Your task to perform on an android device: turn on the 12-hour format for clock Image 0: 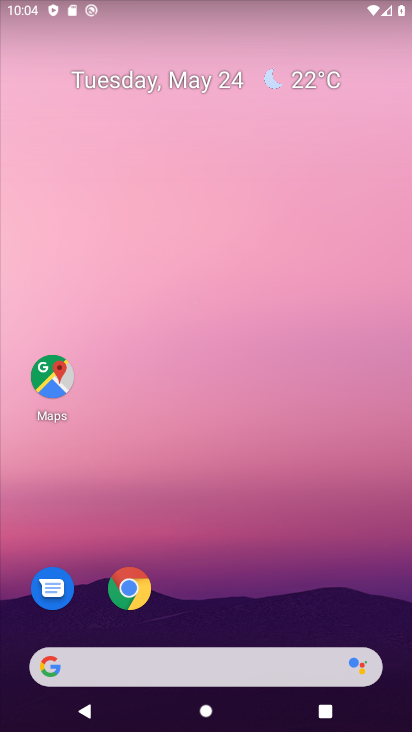
Step 0: drag from (264, 603) to (361, 464)
Your task to perform on an android device: turn on the 12-hour format for clock Image 1: 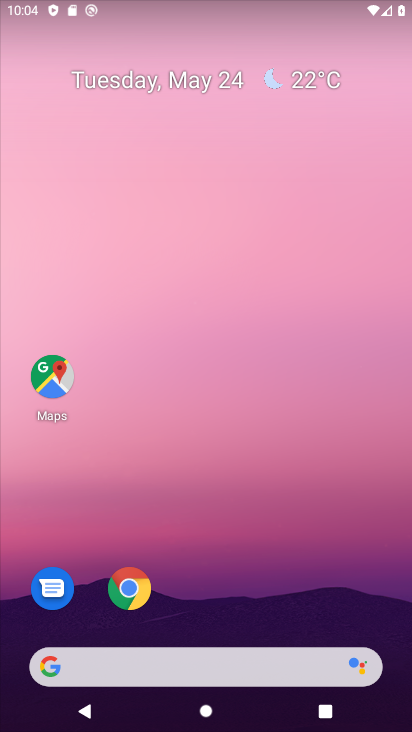
Step 1: drag from (166, 618) to (133, 96)
Your task to perform on an android device: turn on the 12-hour format for clock Image 2: 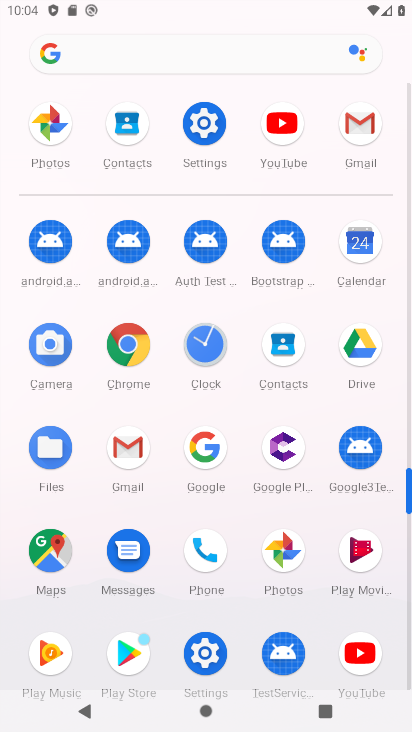
Step 2: click (194, 349)
Your task to perform on an android device: turn on the 12-hour format for clock Image 3: 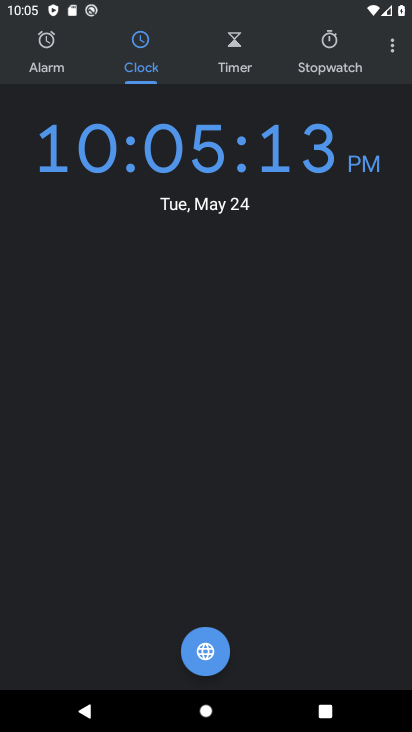
Step 3: click (402, 44)
Your task to perform on an android device: turn on the 12-hour format for clock Image 4: 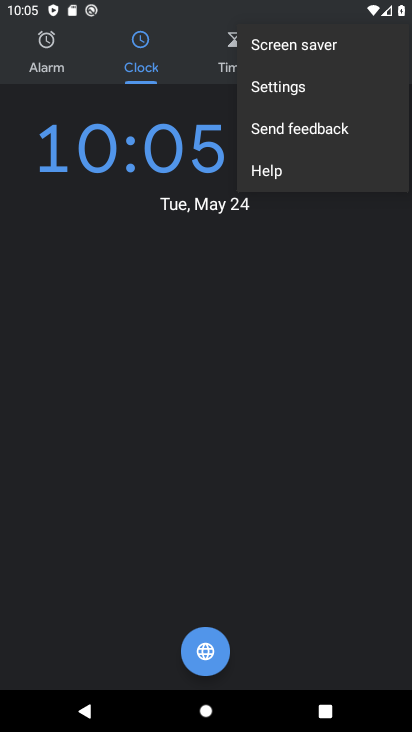
Step 4: click (278, 89)
Your task to perform on an android device: turn on the 12-hour format for clock Image 5: 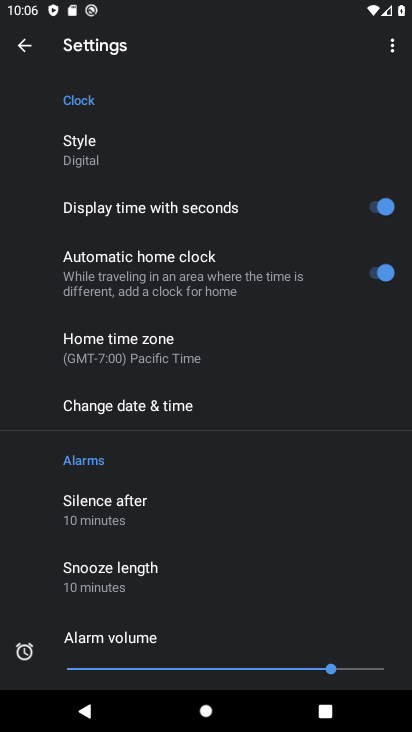
Step 5: task complete